Your task to perform on an android device: Open display settings Image 0: 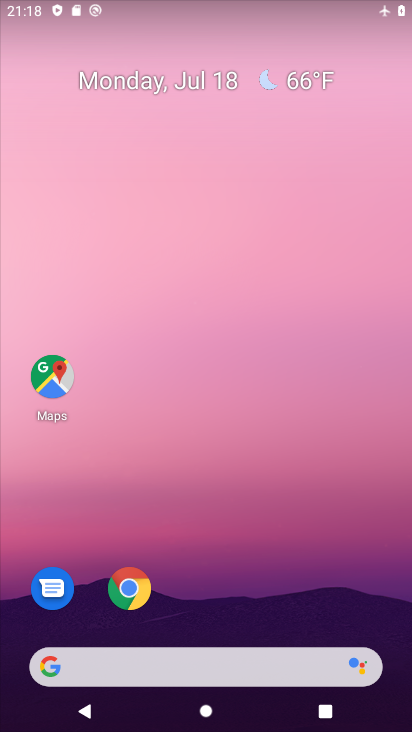
Step 0: drag from (276, 627) to (295, 253)
Your task to perform on an android device: Open display settings Image 1: 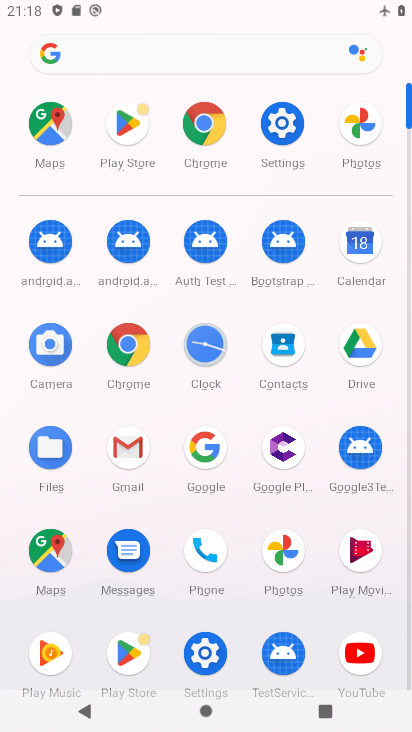
Step 1: click (304, 120)
Your task to perform on an android device: Open display settings Image 2: 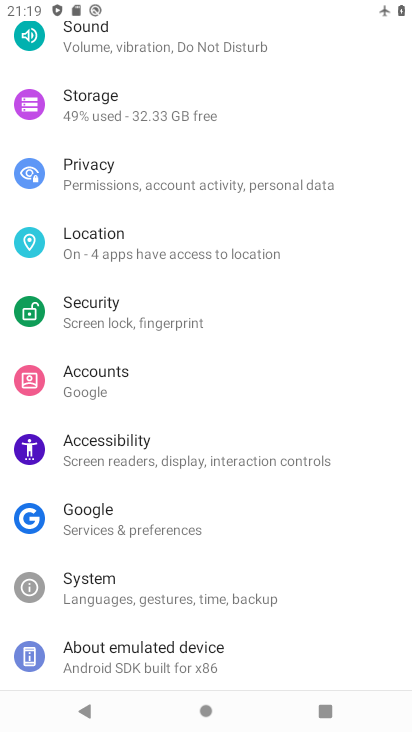
Step 2: drag from (161, 102) to (88, 730)
Your task to perform on an android device: Open display settings Image 3: 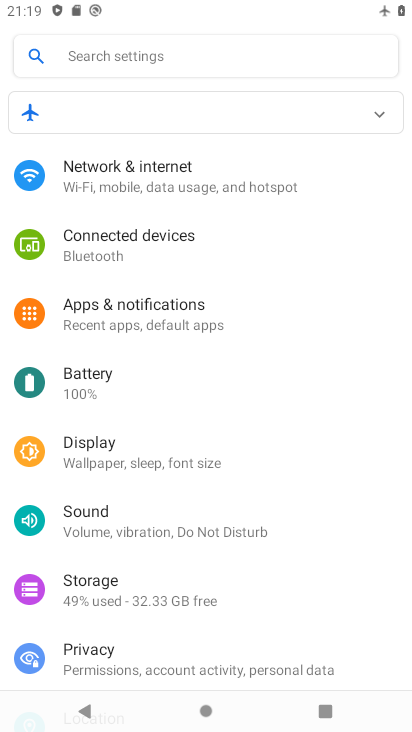
Step 3: click (36, 461)
Your task to perform on an android device: Open display settings Image 4: 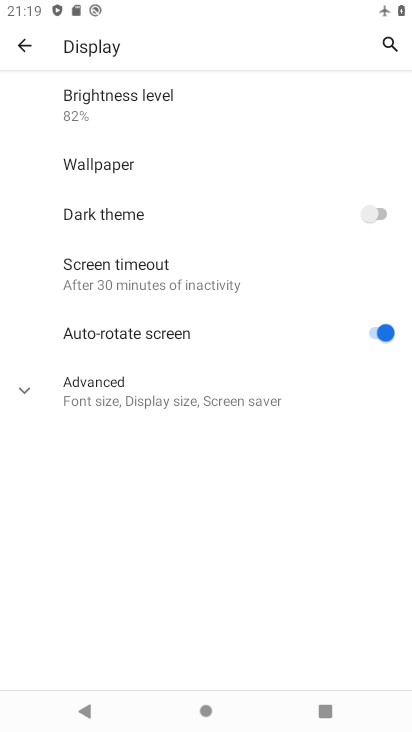
Step 4: task complete